Your task to perform on an android device: Go to notification settings Image 0: 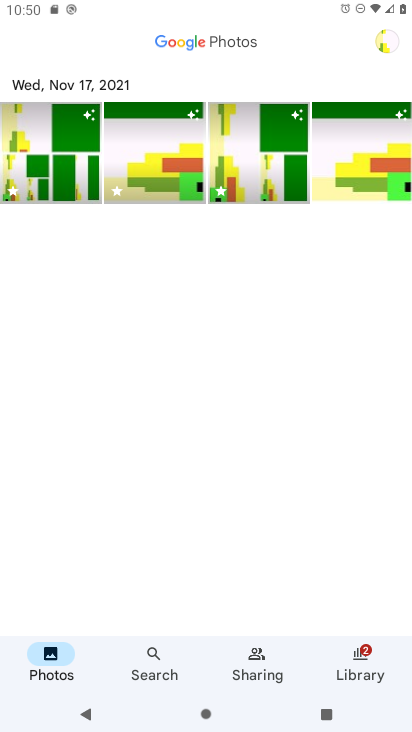
Step 0: press home button
Your task to perform on an android device: Go to notification settings Image 1: 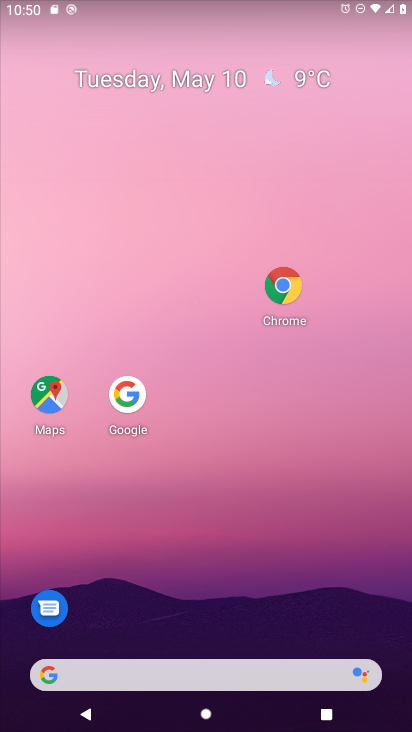
Step 1: drag from (146, 667) to (345, 172)
Your task to perform on an android device: Go to notification settings Image 2: 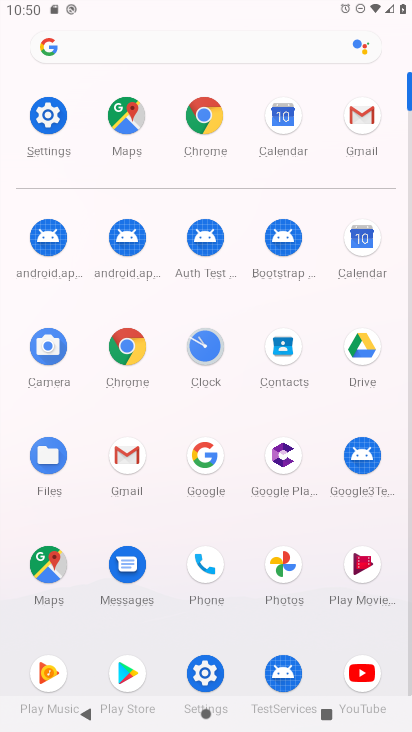
Step 2: click (45, 121)
Your task to perform on an android device: Go to notification settings Image 3: 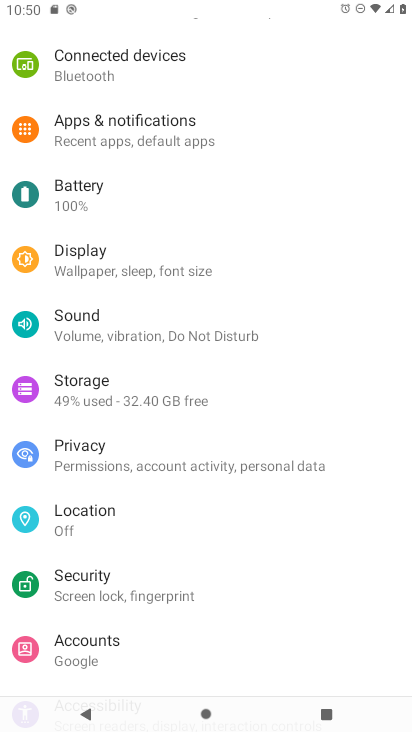
Step 3: click (174, 132)
Your task to perform on an android device: Go to notification settings Image 4: 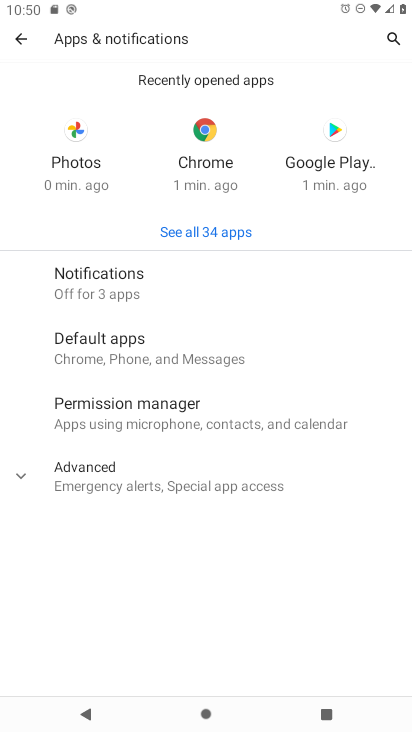
Step 4: click (121, 280)
Your task to perform on an android device: Go to notification settings Image 5: 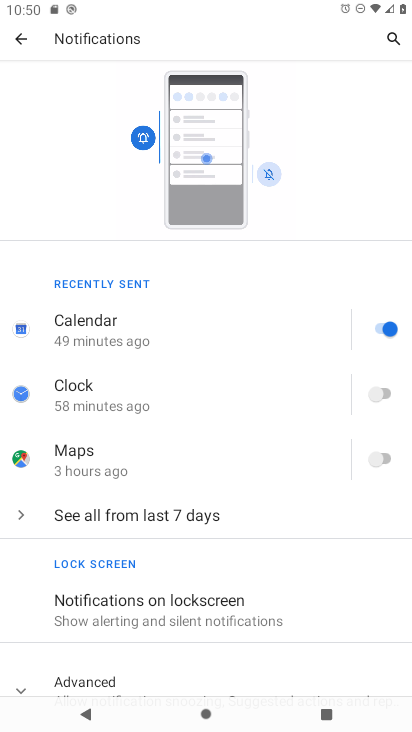
Step 5: task complete